Your task to perform on an android device: Check the weather Image 0: 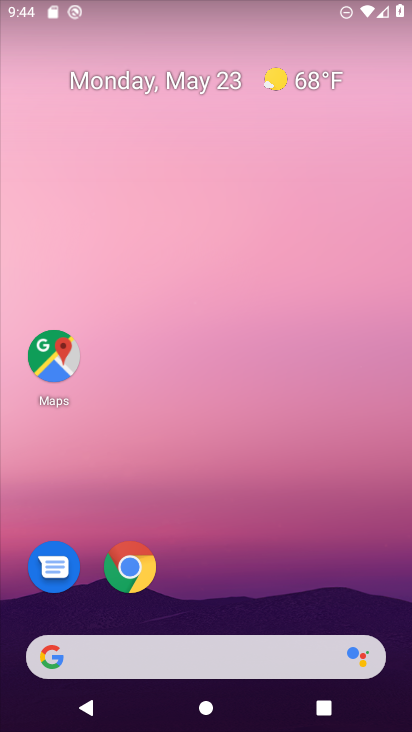
Step 0: drag from (169, 609) to (191, 116)
Your task to perform on an android device: Check the weather Image 1: 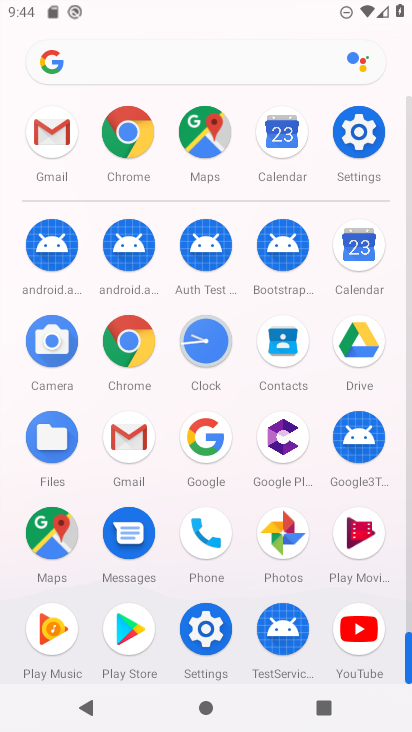
Step 1: click (201, 70)
Your task to perform on an android device: Check the weather Image 2: 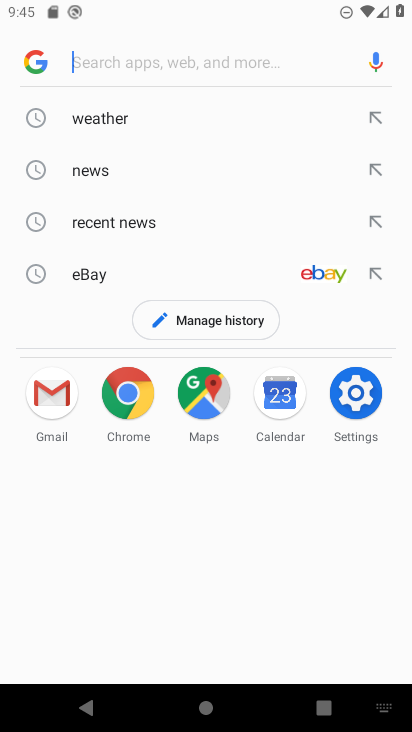
Step 2: click (114, 122)
Your task to perform on an android device: Check the weather Image 3: 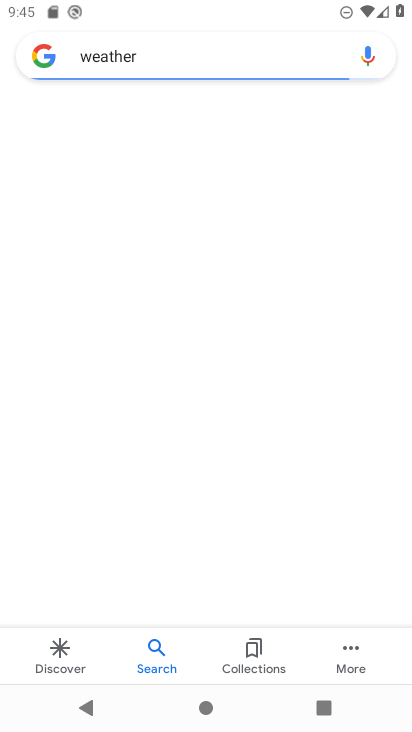
Step 3: drag from (231, 551) to (265, 266)
Your task to perform on an android device: Check the weather Image 4: 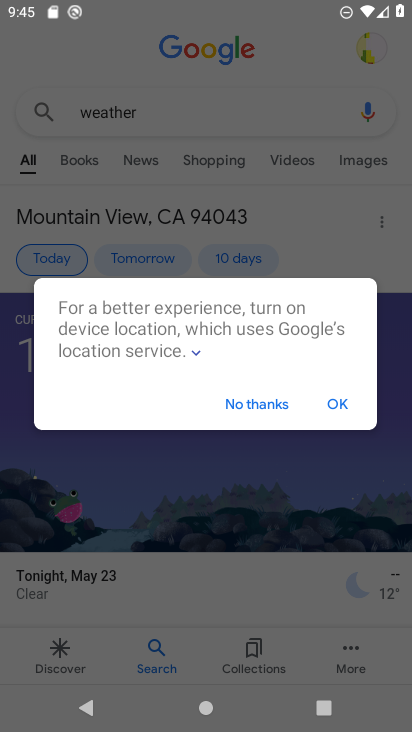
Step 4: click (333, 397)
Your task to perform on an android device: Check the weather Image 5: 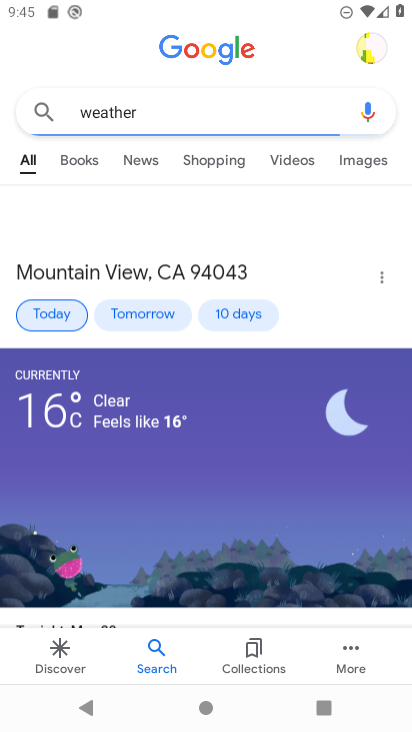
Step 5: task complete